Your task to perform on an android device: toggle data saver in the chrome app Image 0: 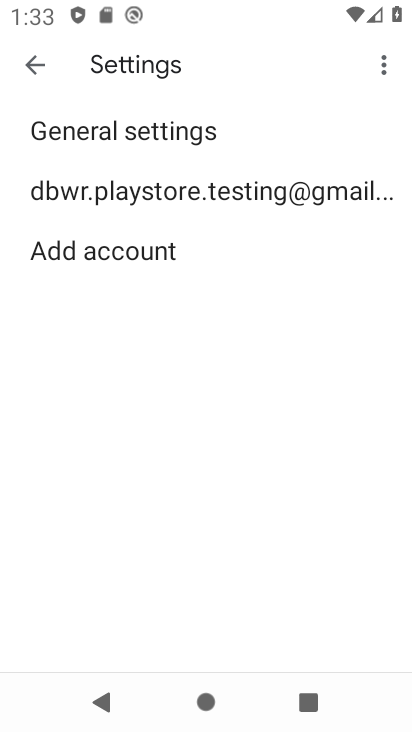
Step 0: press home button
Your task to perform on an android device: toggle data saver in the chrome app Image 1: 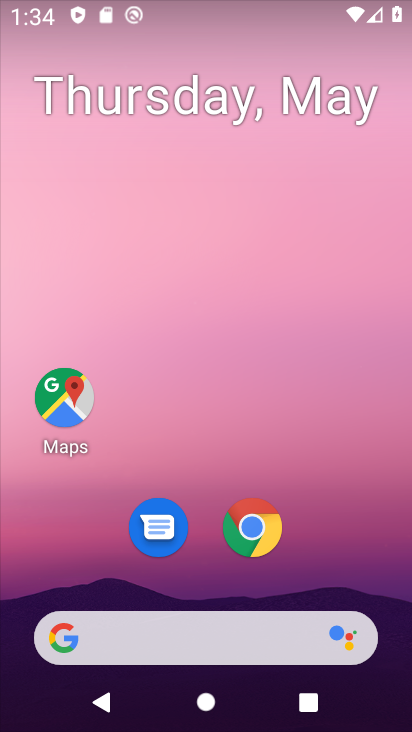
Step 1: drag from (408, 695) to (299, 91)
Your task to perform on an android device: toggle data saver in the chrome app Image 2: 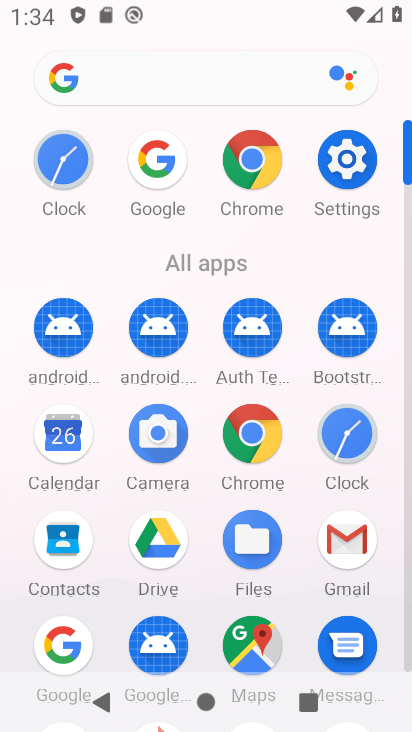
Step 2: click (243, 162)
Your task to perform on an android device: toggle data saver in the chrome app Image 3: 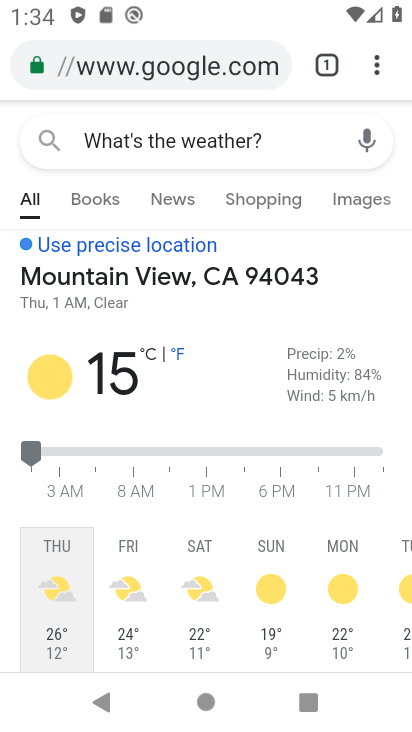
Step 3: drag from (324, 157) to (347, 664)
Your task to perform on an android device: toggle data saver in the chrome app Image 4: 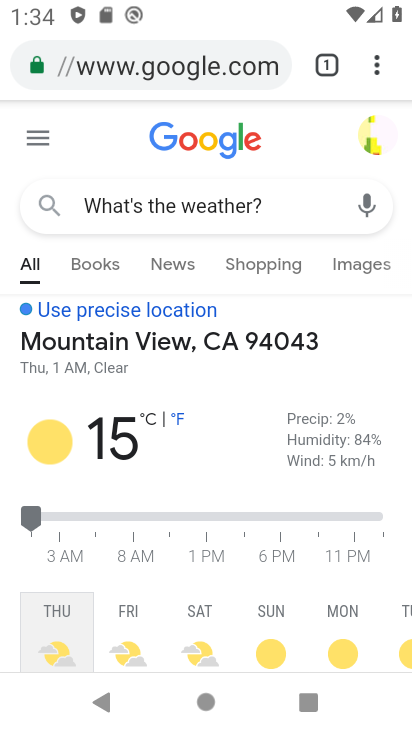
Step 4: drag from (360, 49) to (169, 586)
Your task to perform on an android device: toggle data saver in the chrome app Image 5: 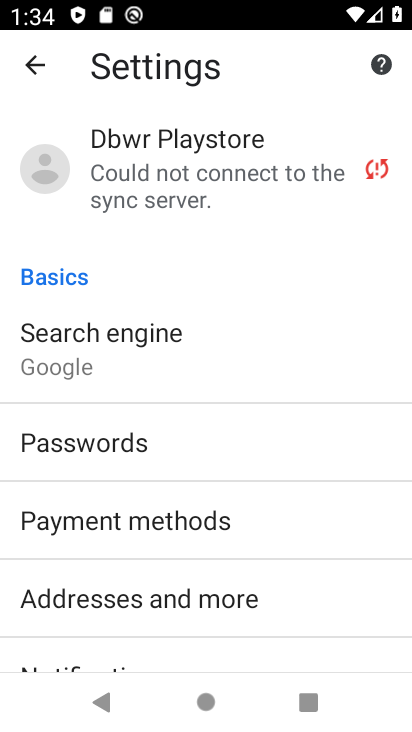
Step 5: drag from (308, 602) to (225, 403)
Your task to perform on an android device: toggle data saver in the chrome app Image 6: 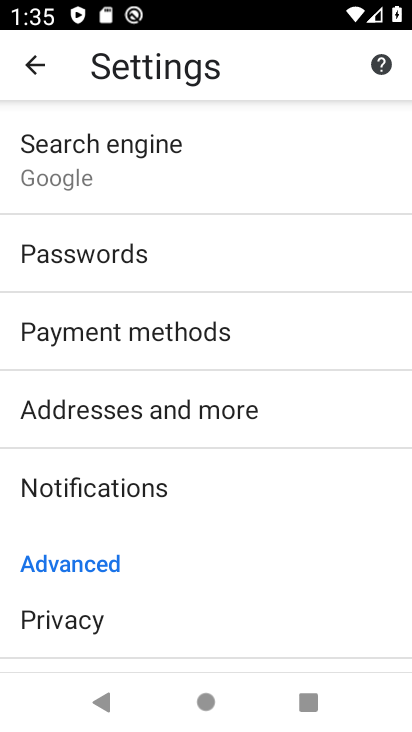
Step 6: drag from (229, 549) to (174, 132)
Your task to perform on an android device: toggle data saver in the chrome app Image 7: 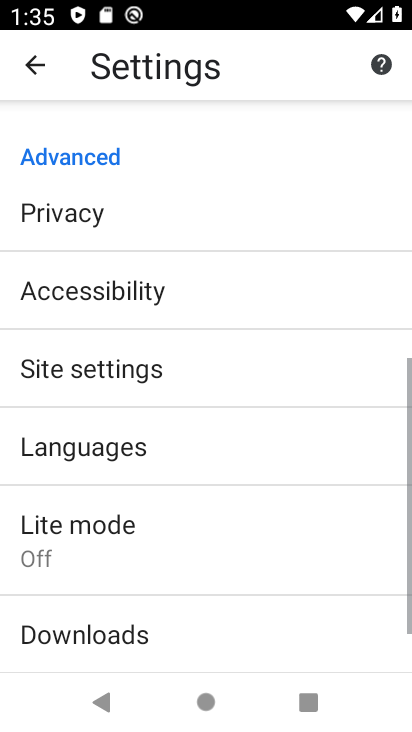
Step 7: drag from (144, 379) to (134, 309)
Your task to perform on an android device: toggle data saver in the chrome app Image 8: 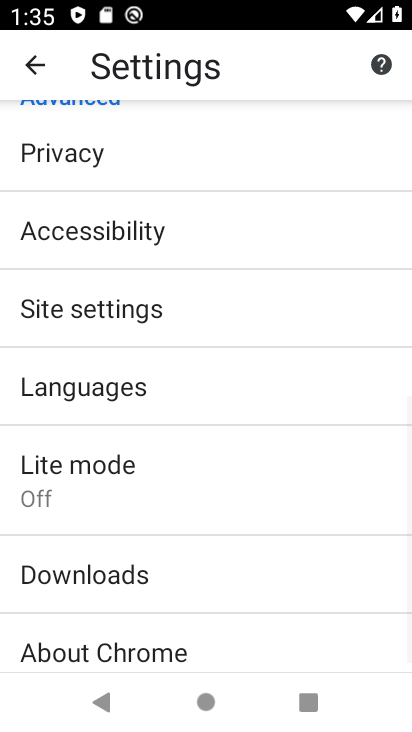
Step 8: drag from (193, 582) to (183, 272)
Your task to perform on an android device: toggle data saver in the chrome app Image 9: 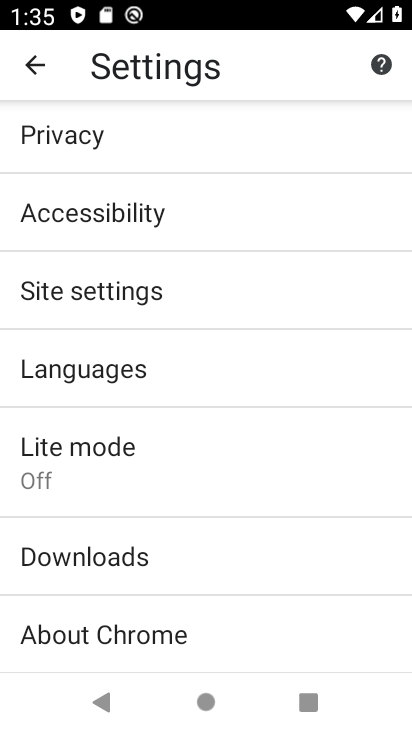
Step 9: drag from (226, 607) to (199, 370)
Your task to perform on an android device: toggle data saver in the chrome app Image 10: 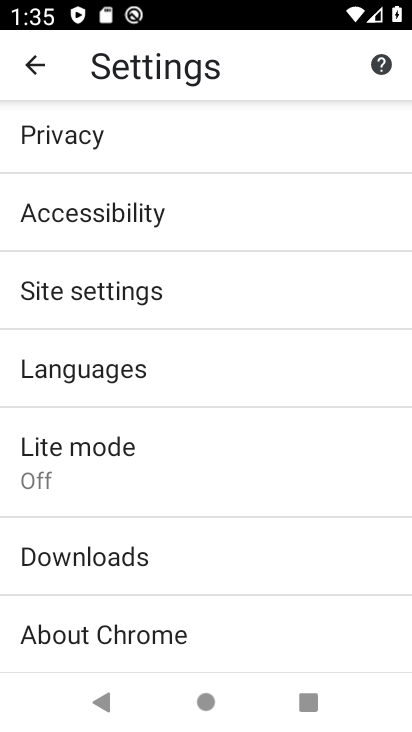
Step 10: drag from (198, 602) to (195, 390)
Your task to perform on an android device: toggle data saver in the chrome app Image 11: 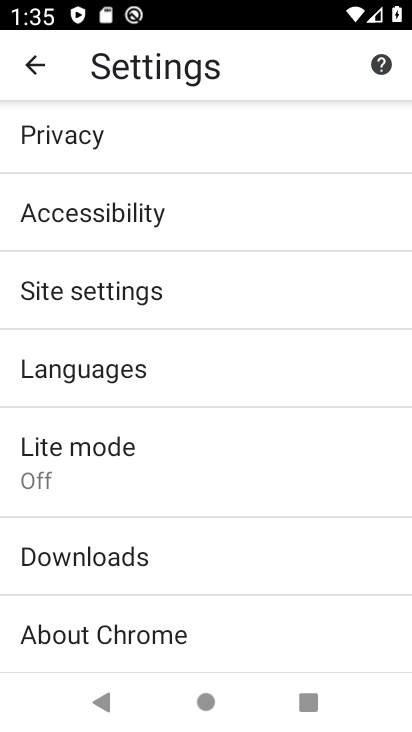
Step 11: drag from (228, 640) to (269, 233)
Your task to perform on an android device: toggle data saver in the chrome app Image 12: 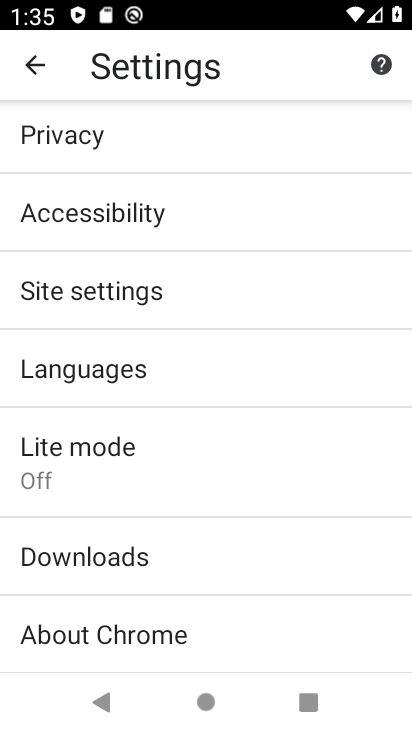
Step 12: drag from (254, 593) to (247, 360)
Your task to perform on an android device: toggle data saver in the chrome app Image 13: 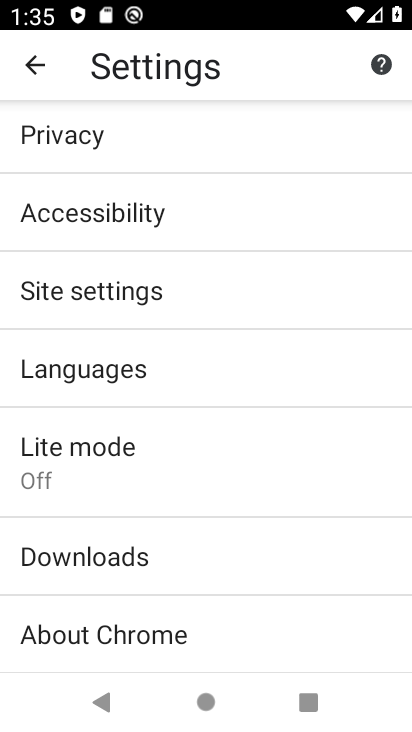
Step 13: drag from (156, 573) to (139, 177)
Your task to perform on an android device: toggle data saver in the chrome app Image 14: 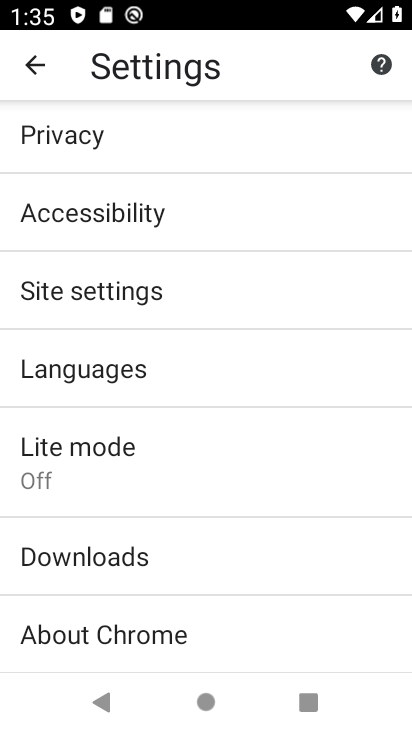
Step 14: click (99, 452)
Your task to perform on an android device: toggle data saver in the chrome app Image 15: 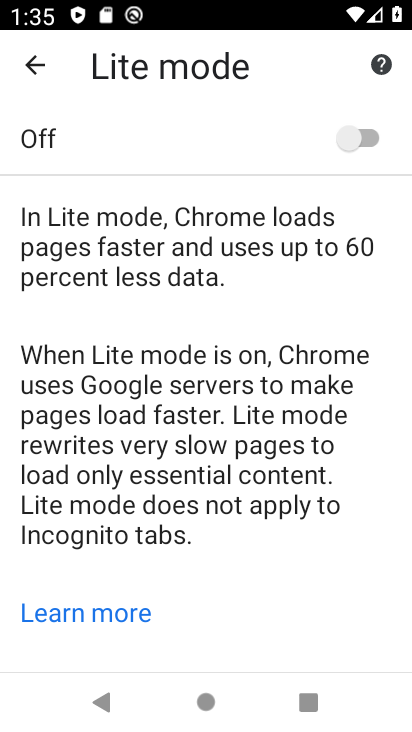
Step 15: click (306, 147)
Your task to perform on an android device: toggle data saver in the chrome app Image 16: 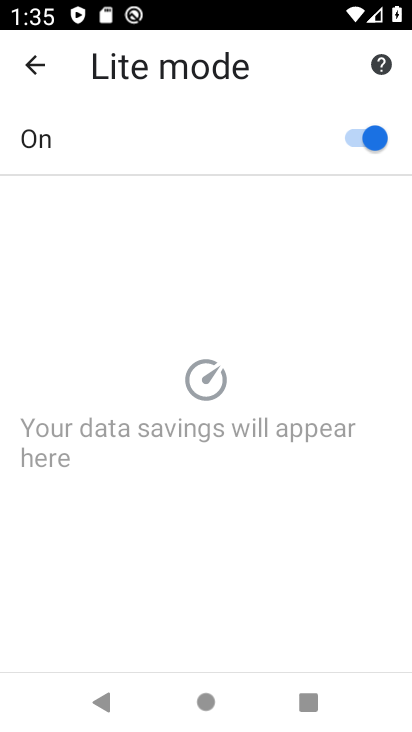
Step 16: task complete